Your task to perform on an android device: Go to accessibility settings Image 0: 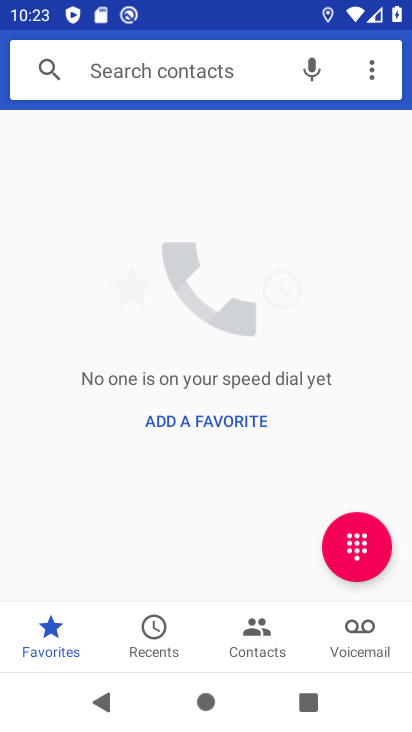
Step 0: press home button
Your task to perform on an android device: Go to accessibility settings Image 1: 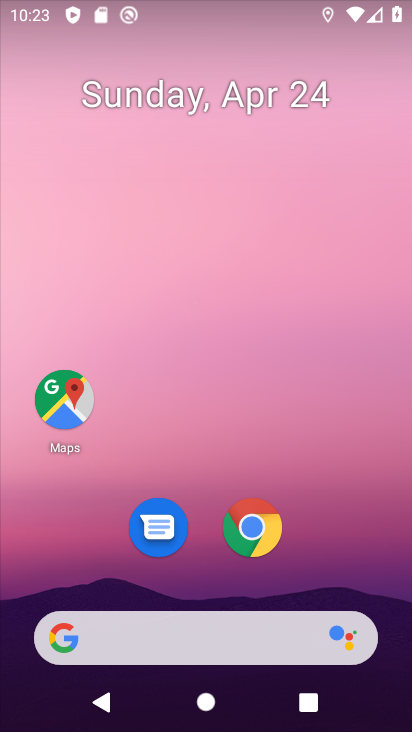
Step 1: drag from (321, 572) to (239, 0)
Your task to perform on an android device: Go to accessibility settings Image 2: 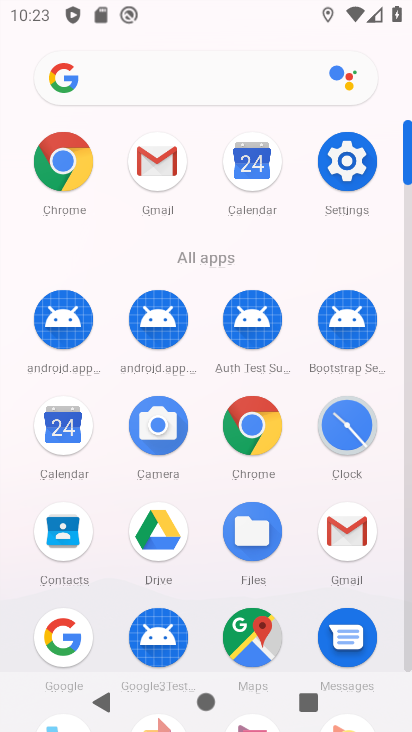
Step 2: click (344, 175)
Your task to perform on an android device: Go to accessibility settings Image 3: 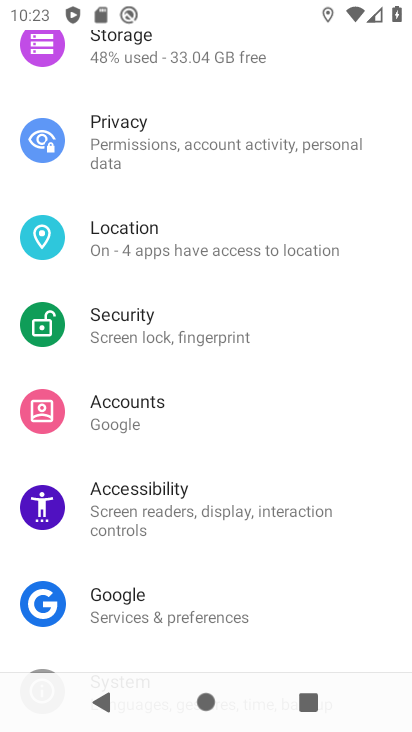
Step 3: click (144, 479)
Your task to perform on an android device: Go to accessibility settings Image 4: 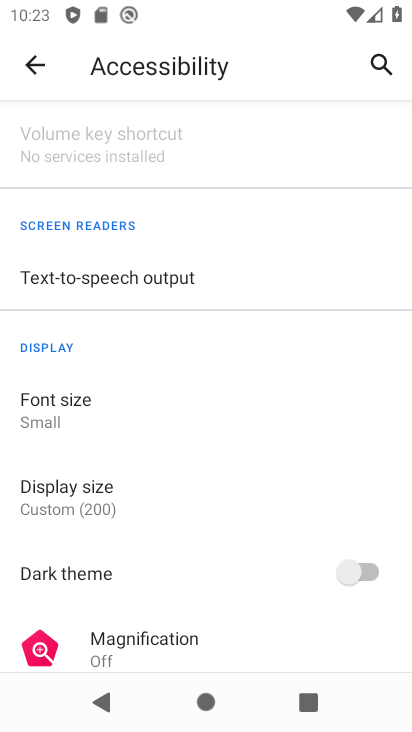
Step 4: task complete